Your task to perform on an android device: Show me popular videos on Youtube Image 0: 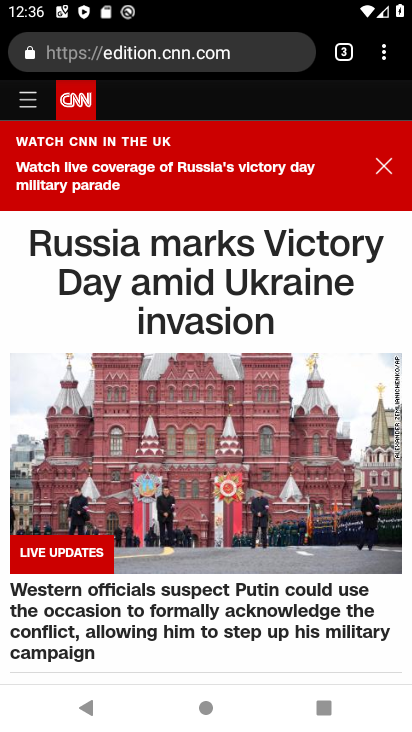
Step 0: press home button
Your task to perform on an android device: Show me popular videos on Youtube Image 1: 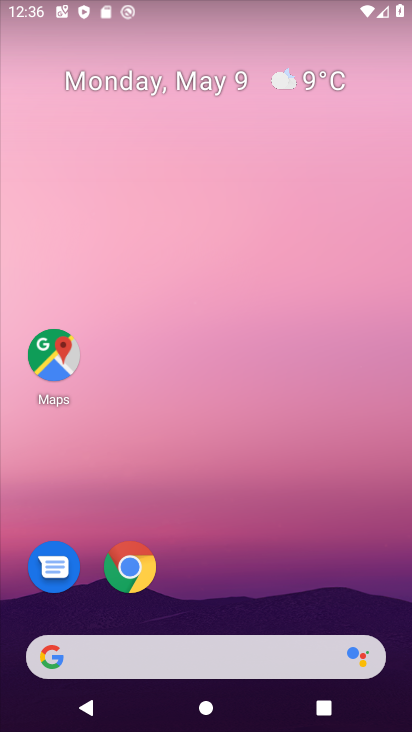
Step 1: drag from (260, 672) to (342, 304)
Your task to perform on an android device: Show me popular videos on Youtube Image 2: 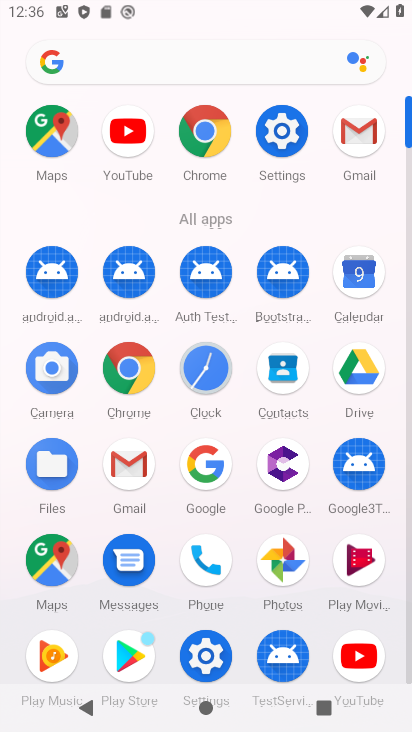
Step 2: click (357, 659)
Your task to perform on an android device: Show me popular videos on Youtube Image 3: 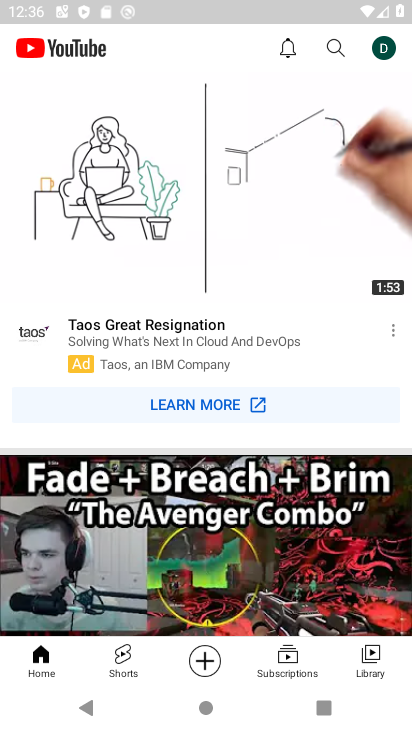
Step 3: click (325, 51)
Your task to perform on an android device: Show me popular videos on Youtube Image 4: 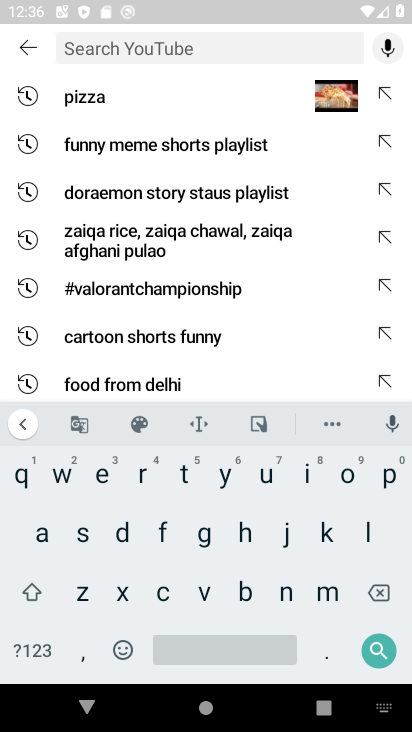
Step 4: click (380, 485)
Your task to perform on an android device: Show me popular videos on Youtube Image 5: 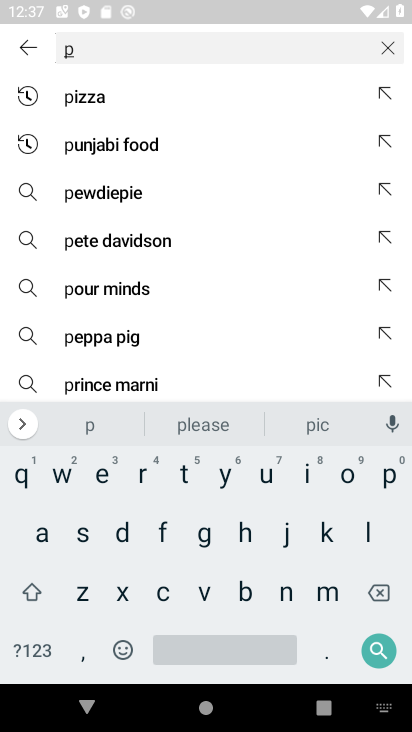
Step 5: click (349, 477)
Your task to perform on an android device: Show me popular videos on Youtube Image 6: 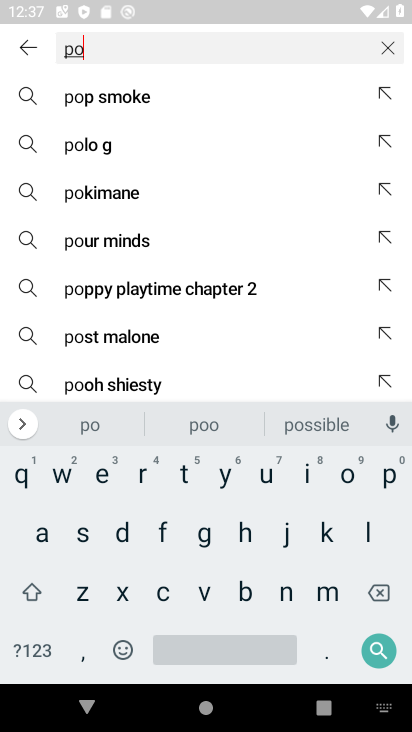
Step 6: click (391, 485)
Your task to perform on an android device: Show me popular videos on Youtube Image 7: 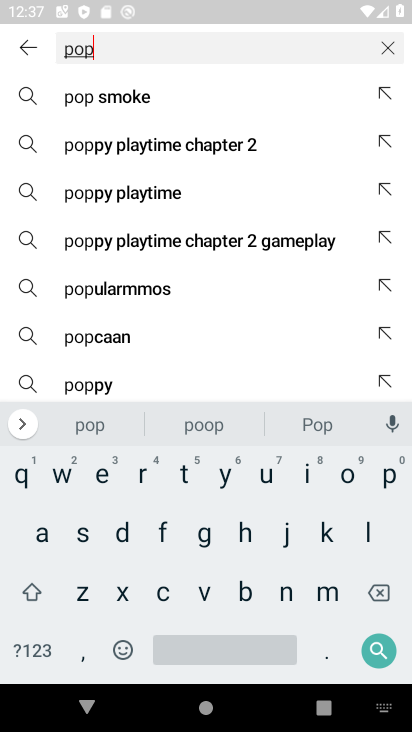
Step 7: click (268, 473)
Your task to perform on an android device: Show me popular videos on Youtube Image 8: 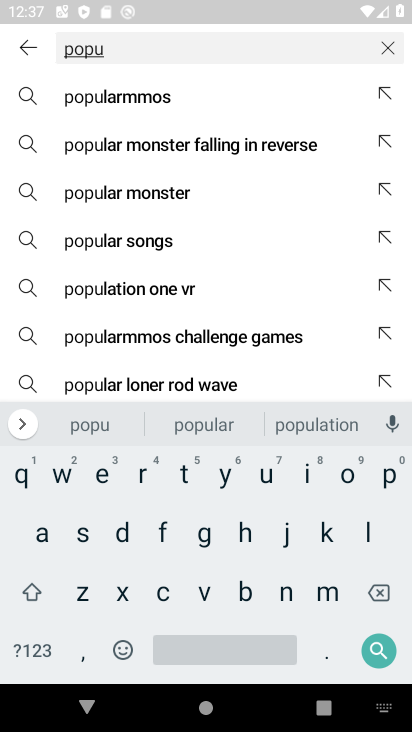
Step 8: click (217, 416)
Your task to perform on an android device: Show me popular videos on Youtube Image 9: 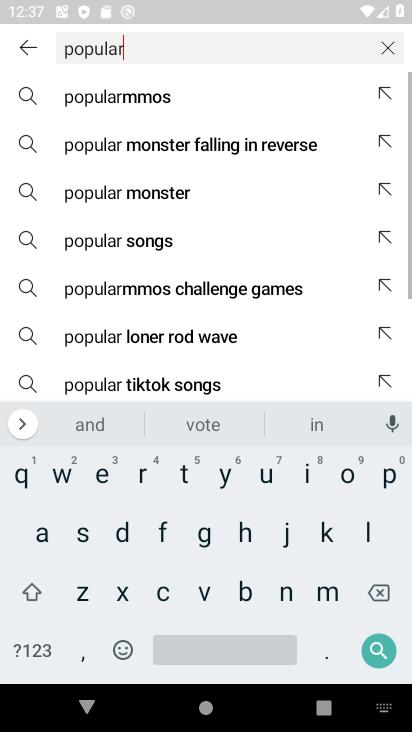
Step 9: click (196, 599)
Your task to perform on an android device: Show me popular videos on Youtube Image 10: 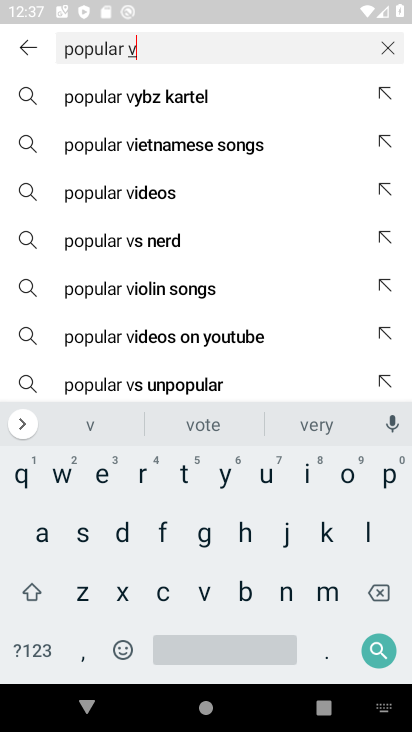
Step 10: click (165, 199)
Your task to perform on an android device: Show me popular videos on Youtube Image 11: 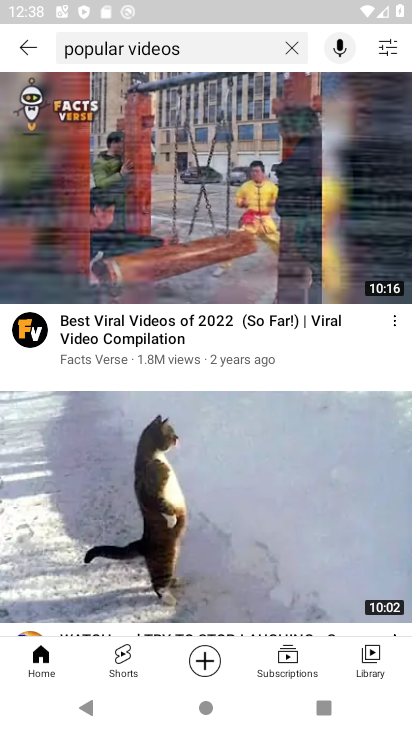
Step 11: task complete